Your task to perform on an android device: turn on bluetooth scan Image 0: 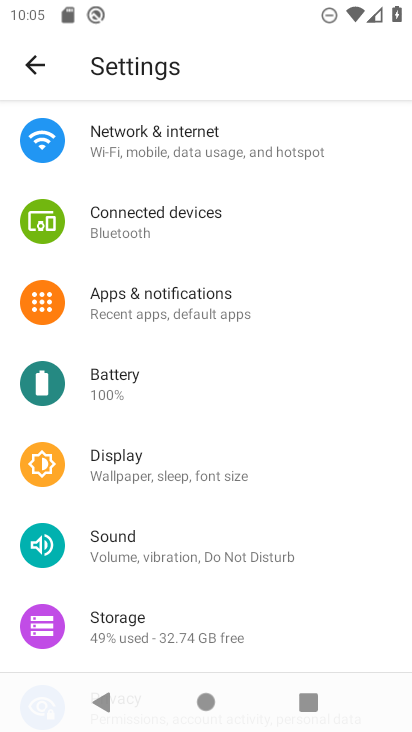
Step 0: drag from (239, 600) to (15, 346)
Your task to perform on an android device: turn on bluetooth scan Image 1: 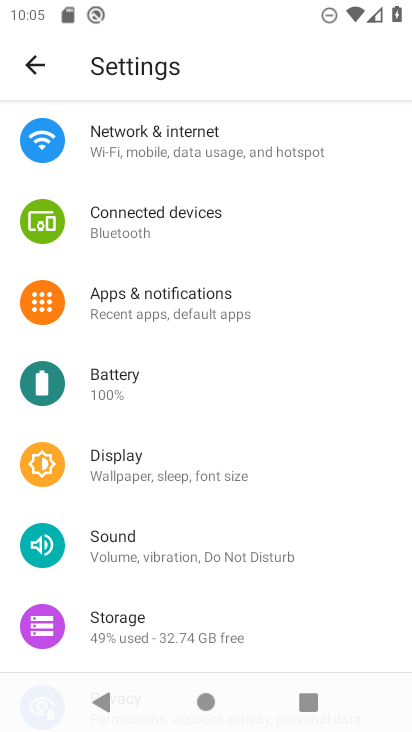
Step 1: drag from (336, 528) to (336, 185)
Your task to perform on an android device: turn on bluetooth scan Image 2: 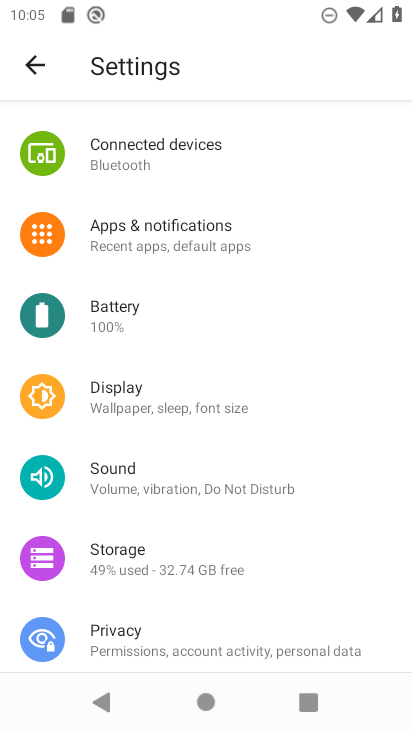
Step 2: drag from (365, 559) to (353, 301)
Your task to perform on an android device: turn on bluetooth scan Image 3: 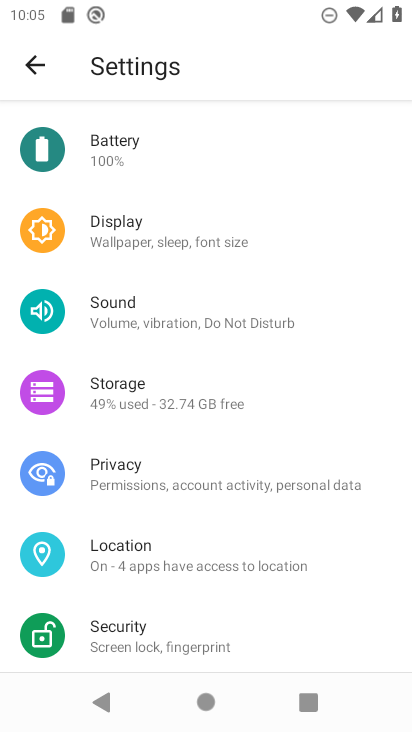
Step 3: click (121, 565)
Your task to perform on an android device: turn on bluetooth scan Image 4: 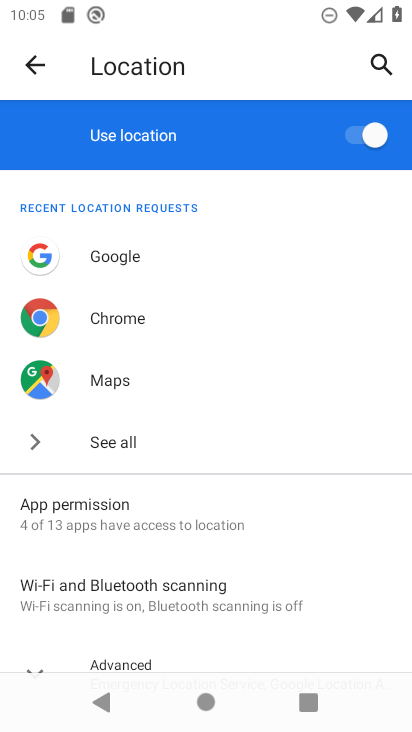
Step 4: drag from (202, 565) to (213, 227)
Your task to perform on an android device: turn on bluetooth scan Image 5: 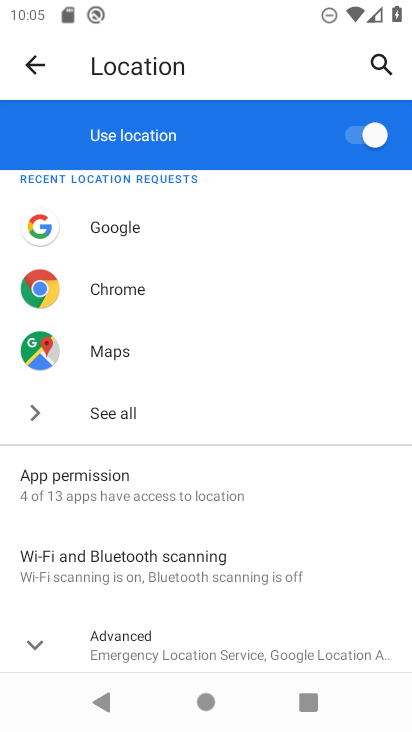
Step 5: click (213, 227)
Your task to perform on an android device: turn on bluetooth scan Image 6: 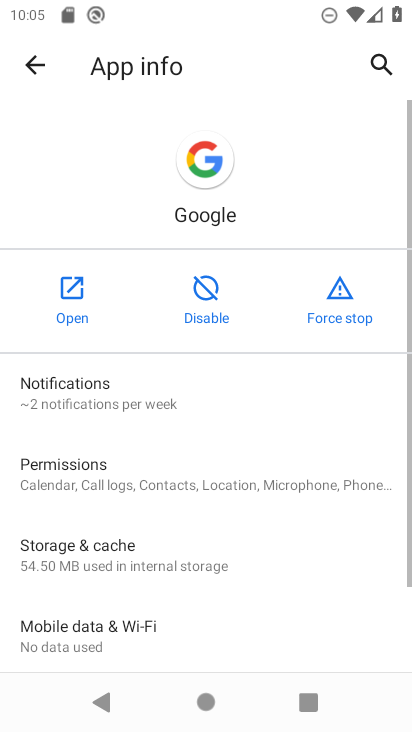
Step 6: click (163, 562)
Your task to perform on an android device: turn on bluetooth scan Image 7: 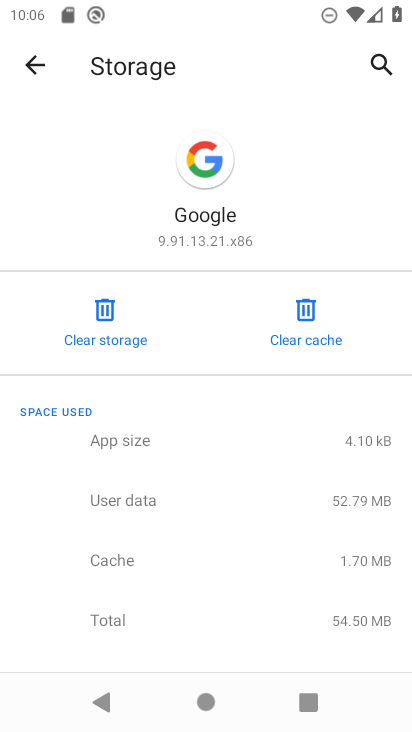
Step 7: click (32, 62)
Your task to perform on an android device: turn on bluetooth scan Image 8: 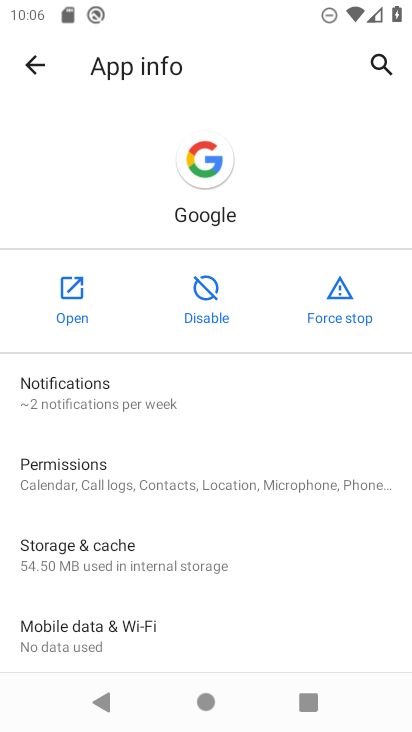
Step 8: click (32, 57)
Your task to perform on an android device: turn on bluetooth scan Image 9: 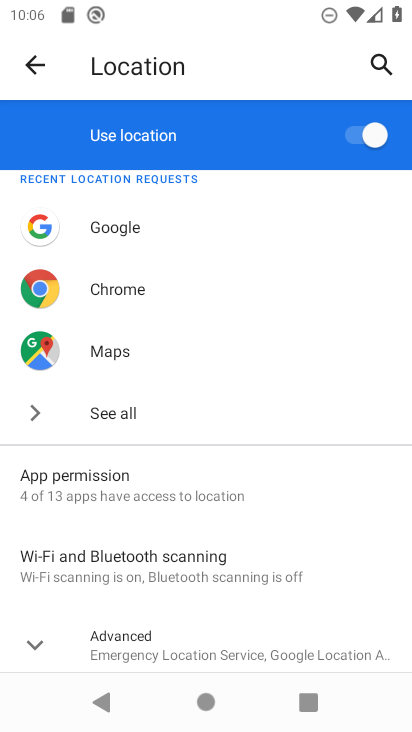
Step 9: click (134, 561)
Your task to perform on an android device: turn on bluetooth scan Image 10: 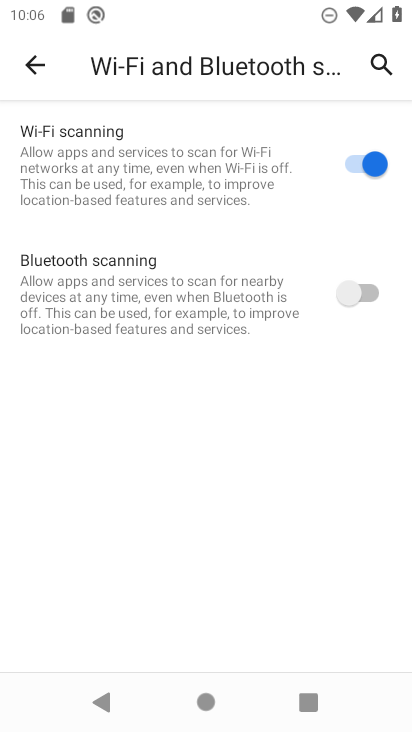
Step 10: click (367, 294)
Your task to perform on an android device: turn on bluetooth scan Image 11: 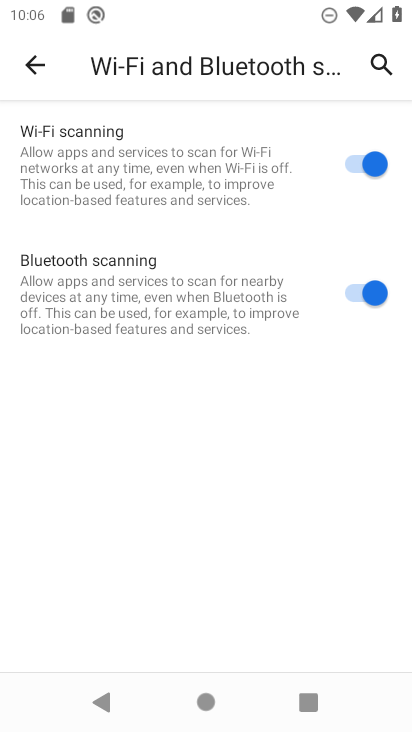
Step 11: task complete